Your task to perform on an android device: set an alarm Image 0: 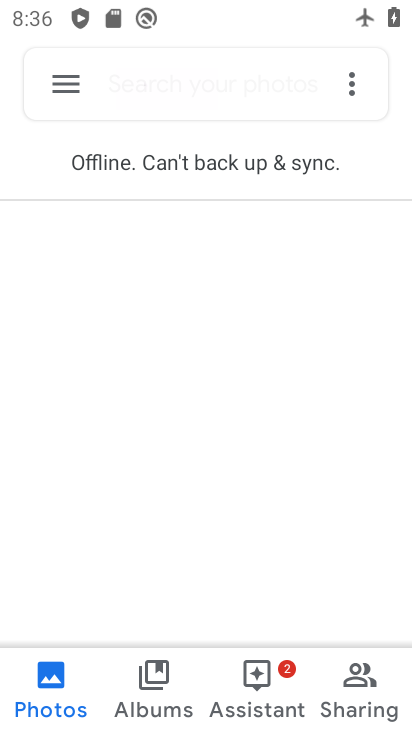
Step 0: press home button
Your task to perform on an android device: set an alarm Image 1: 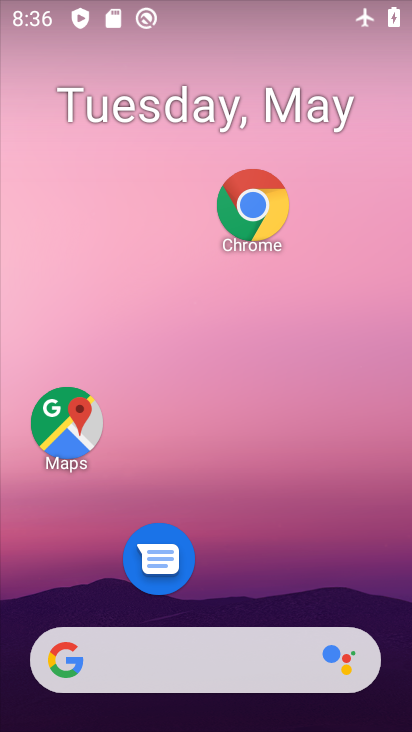
Step 1: drag from (211, 564) to (218, 139)
Your task to perform on an android device: set an alarm Image 2: 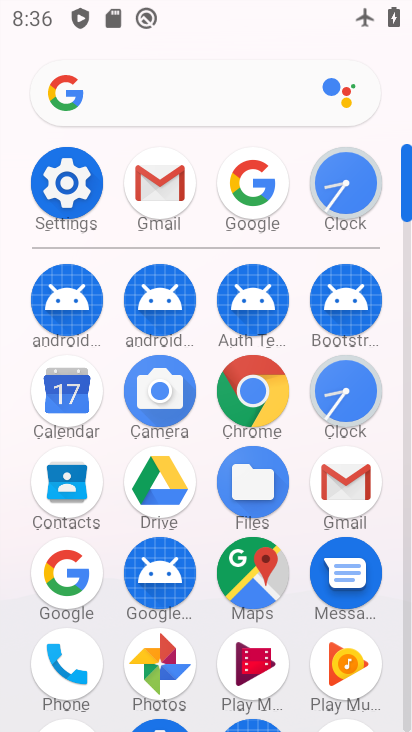
Step 2: click (326, 202)
Your task to perform on an android device: set an alarm Image 3: 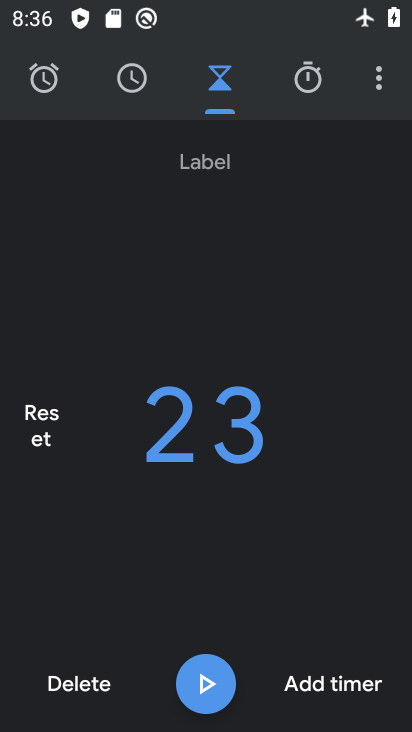
Step 3: click (53, 96)
Your task to perform on an android device: set an alarm Image 4: 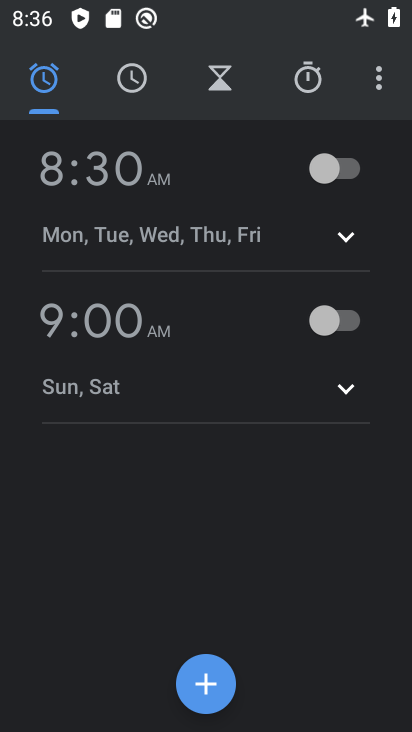
Step 4: click (343, 174)
Your task to perform on an android device: set an alarm Image 5: 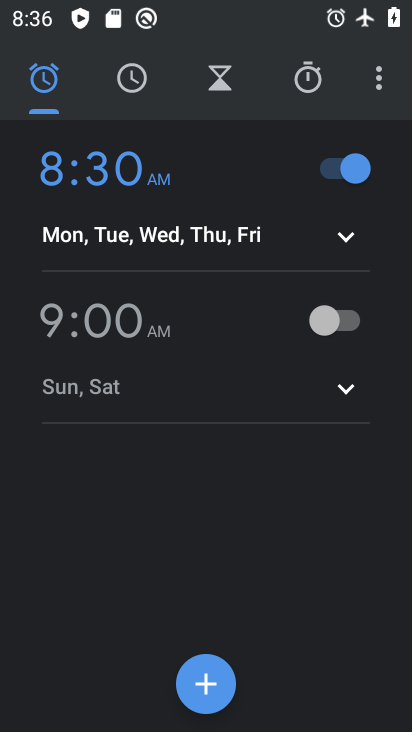
Step 5: task complete